Your task to perform on an android device: Play the last video I watched on Youtube Image 0: 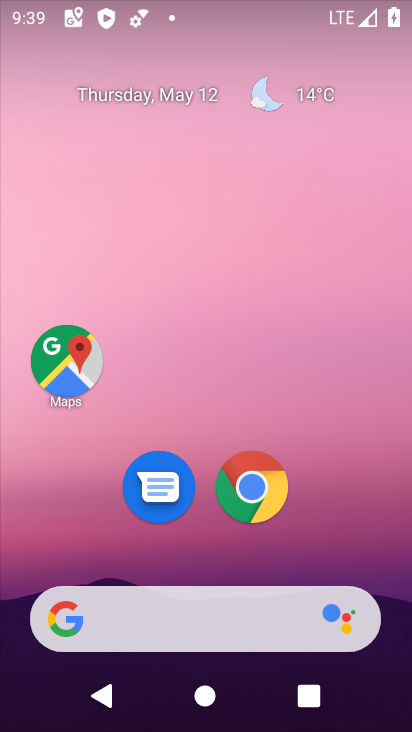
Step 0: drag from (17, 571) to (233, 125)
Your task to perform on an android device: Play the last video I watched on Youtube Image 1: 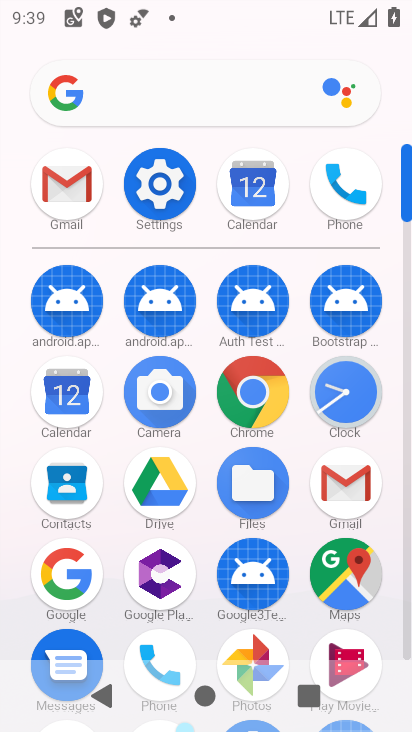
Step 1: drag from (253, 599) to (352, 179)
Your task to perform on an android device: Play the last video I watched on Youtube Image 2: 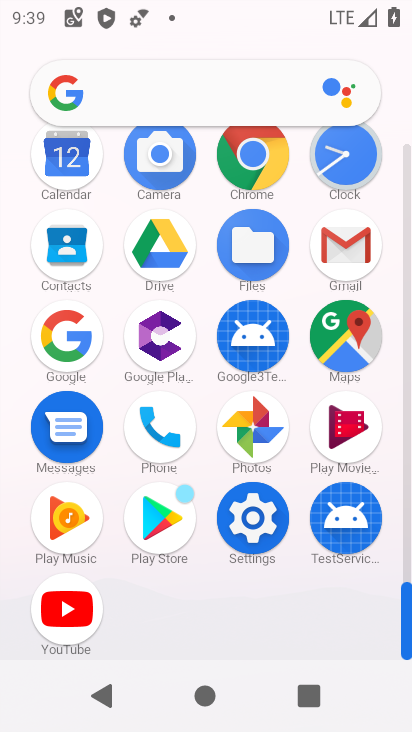
Step 2: click (80, 593)
Your task to perform on an android device: Play the last video I watched on Youtube Image 3: 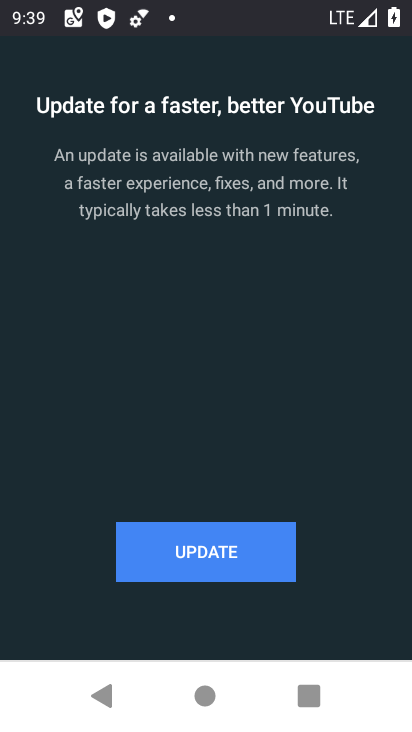
Step 3: task complete